Your task to perform on an android device: Do I have any events this weekend? Image 0: 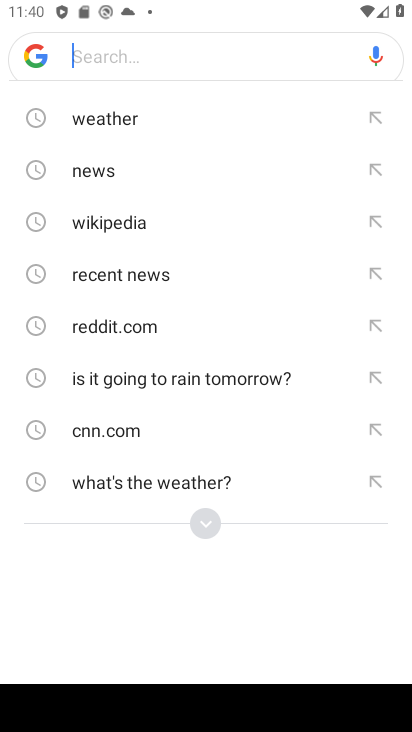
Step 0: press home button
Your task to perform on an android device: Do I have any events this weekend? Image 1: 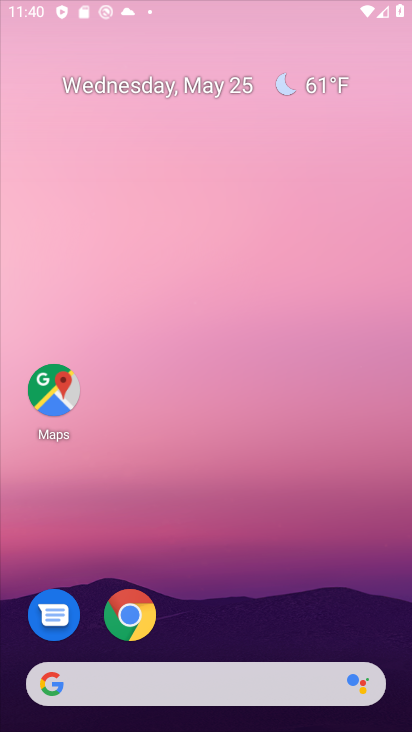
Step 1: drag from (350, 597) to (292, 129)
Your task to perform on an android device: Do I have any events this weekend? Image 2: 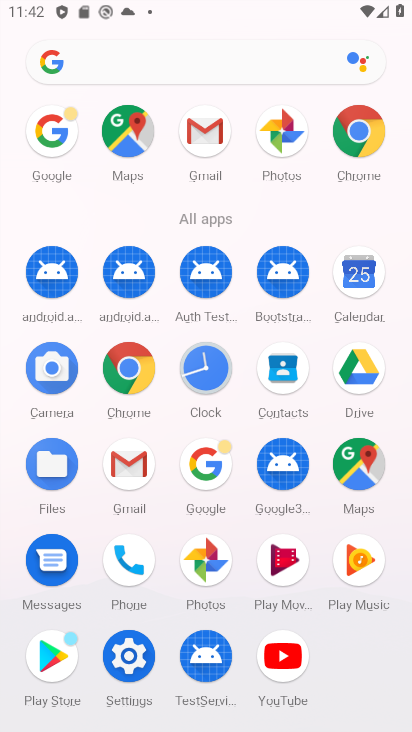
Step 2: click (379, 256)
Your task to perform on an android device: Do I have any events this weekend? Image 3: 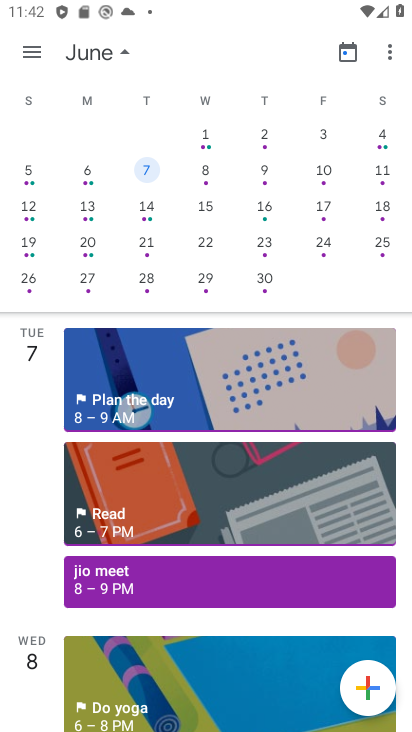
Step 3: task complete